Your task to perform on an android device: turn off airplane mode Image 0: 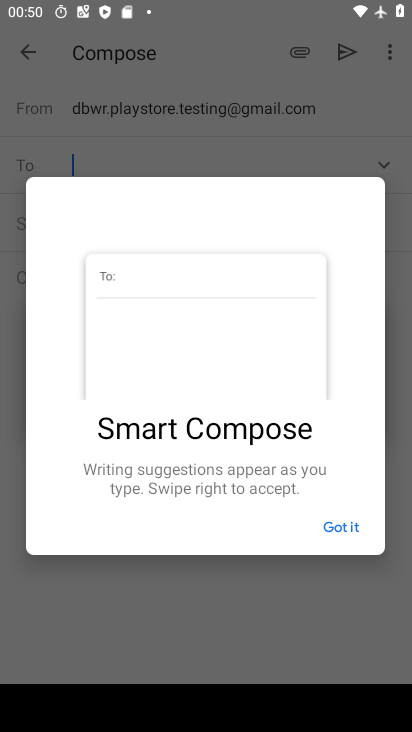
Step 0: press home button
Your task to perform on an android device: turn off airplane mode Image 1: 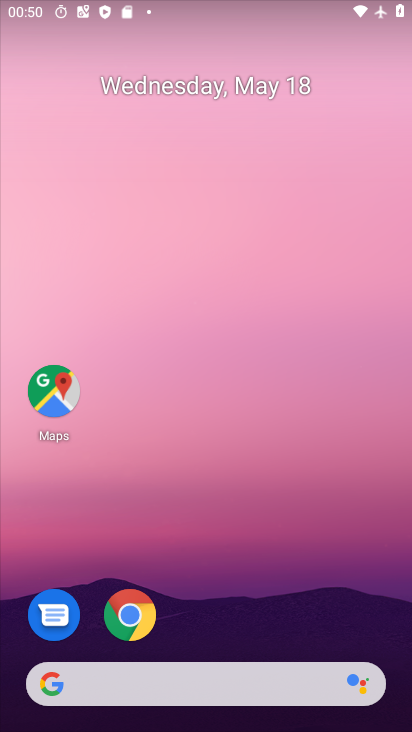
Step 1: drag from (201, 640) to (201, 229)
Your task to perform on an android device: turn off airplane mode Image 2: 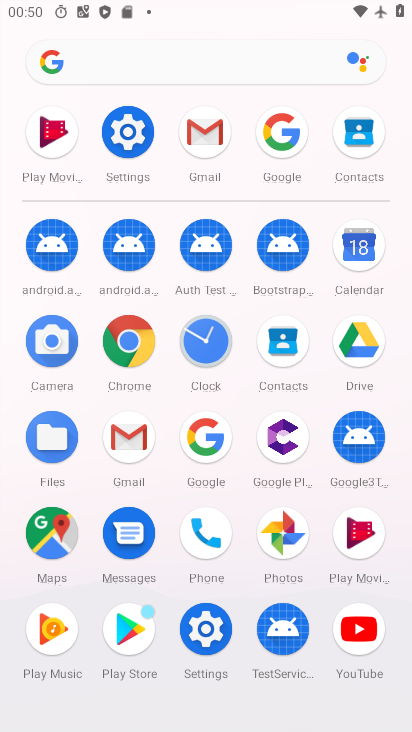
Step 2: click (123, 142)
Your task to perform on an android device: turn off airplane mode Image 3: 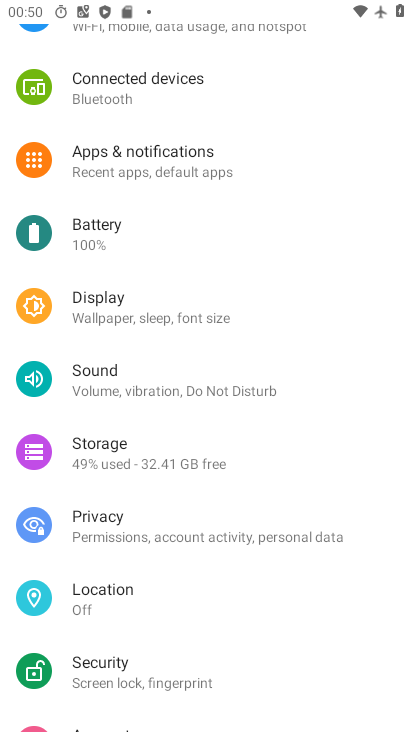
Step 3: drag from (123, 142) to (137, 499)
Your task to perform on an android device: turn off airplane mode Image 4: 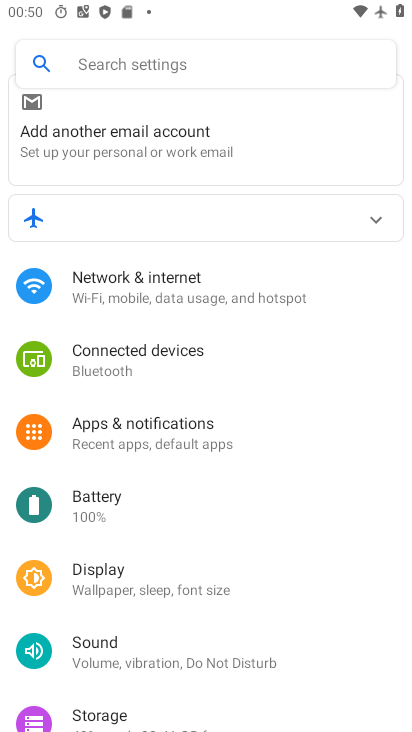
Step 4: click (208, 275)
Your task to perform on an android device: turn off airplane mode Image 5: 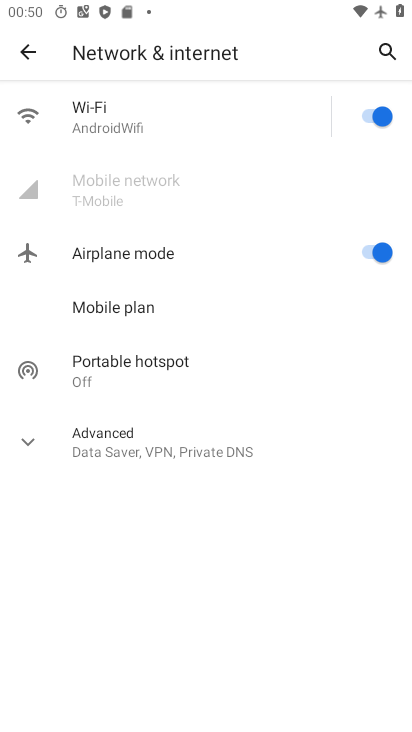
Step 5: click (359, 251)
Your task to perform on an android device: turn off airplane mode Image 6: 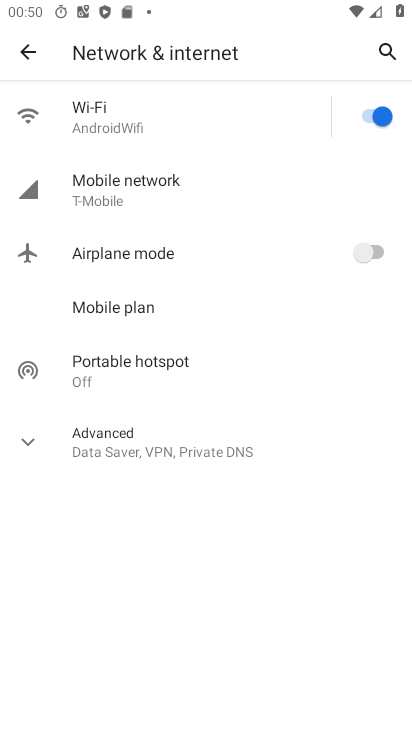
Step 6: task complete